Your task to perform on an android device: What's the weather going to be this weekend? Image 0: 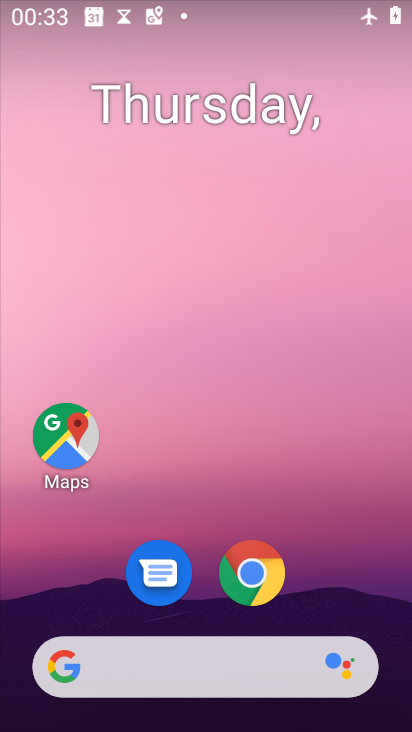
Step 0: drag from (331, 586) to (317, 336)
Your task to perform on an android device: What's the weather going to be this weekend? Image 1: 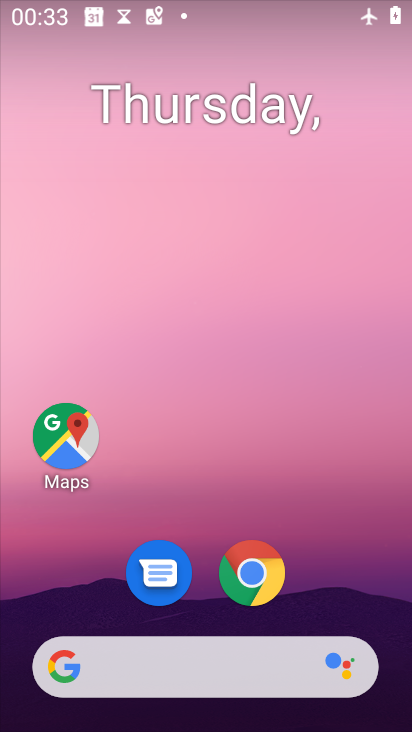
Step 1: drag from (353, 567) to (346, 255)
Your task to perform on an android device: What's the weather going to be this weekend? Image 2: 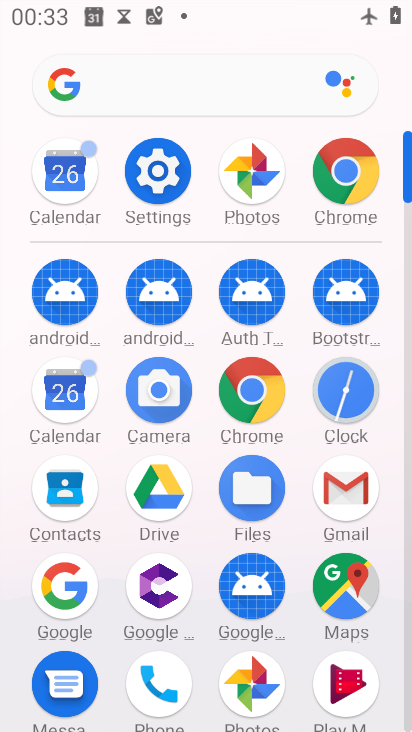
Step 2: click (262, 385)
Your task to perform on an android device: What's the weather going to be this weekend? Image 3: 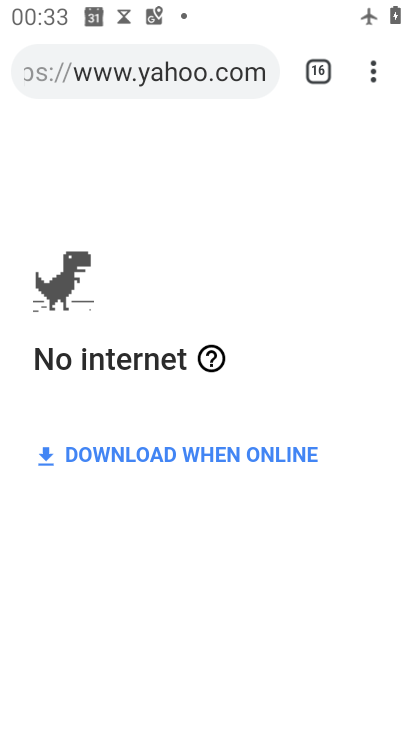
Step 3: click (359, 67)
Your task to perform on an android device: What's the weather going to be this weekend? Image 4: 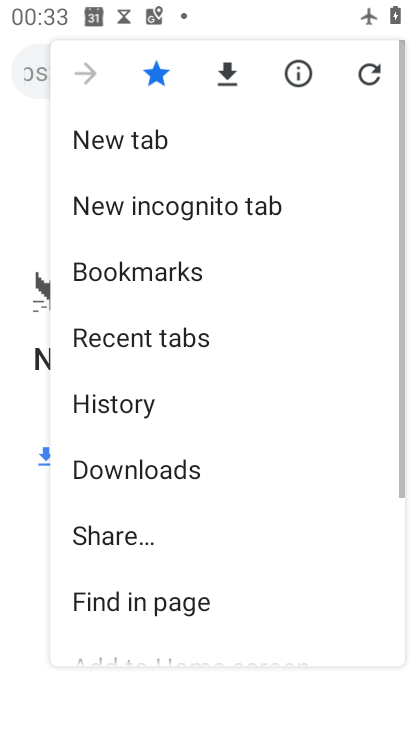
Step 4: click (129, 131)
Your task to perform on an android device: What's the weather going to be this weekend? Image 5: 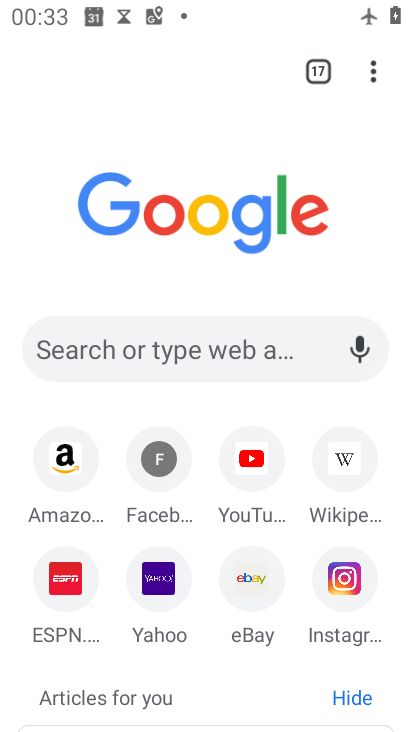
Step 5: click (143, 349)
Your task to perform on an android device: What's the weather going to be this weekend? Image 6: 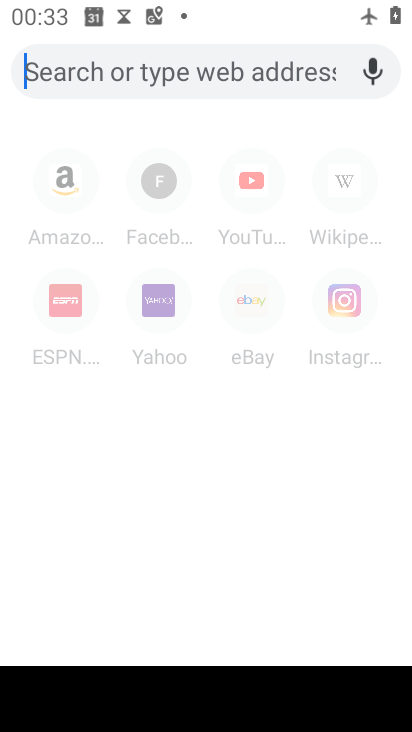
Step 6: type "What's the weather going to be this weekend?"
Your task to perform on an android device: What's the weather going to be this weekend? Image 7: 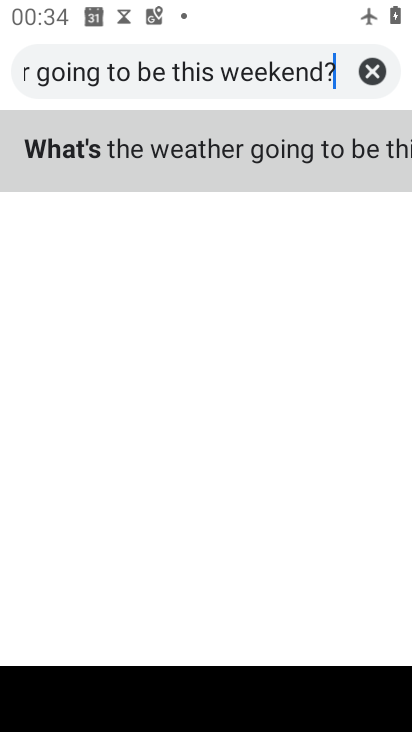
Step 7: click (141, 147)
Your task to perform on an android device: What's the weather going to be this weekend? Image 8: 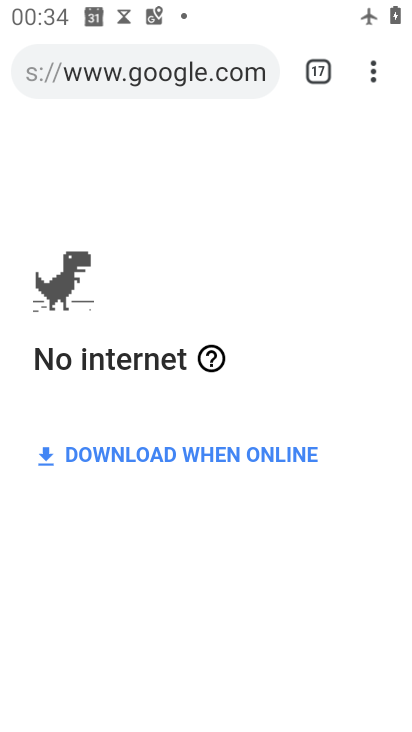
Step 8: task complete